Your task to perform on an android device: Go to Yahoo.com Image 0: 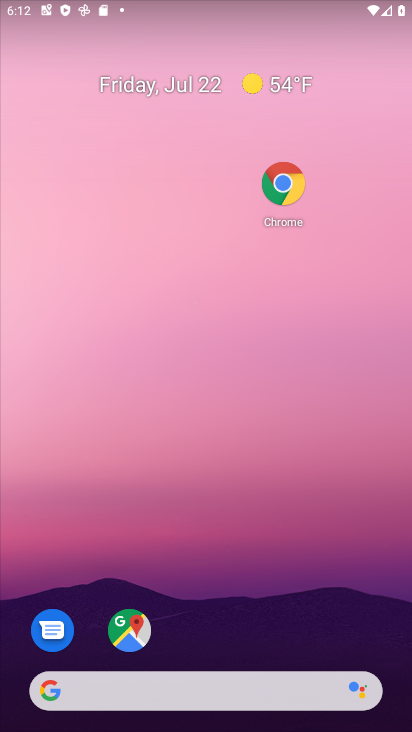
Step 0: click (282, 189)
Your task to perform on an android device: Go to Yahoo.com Image 1: 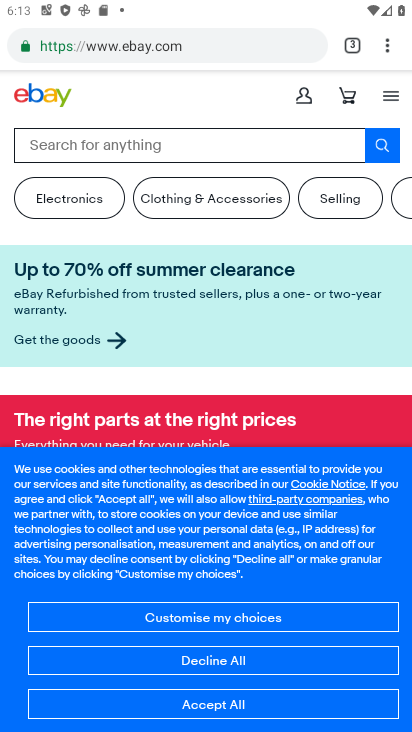
Step 1: click (112, 45)
Your task to perform on an android device: Go to Yahoo.com Image 2: 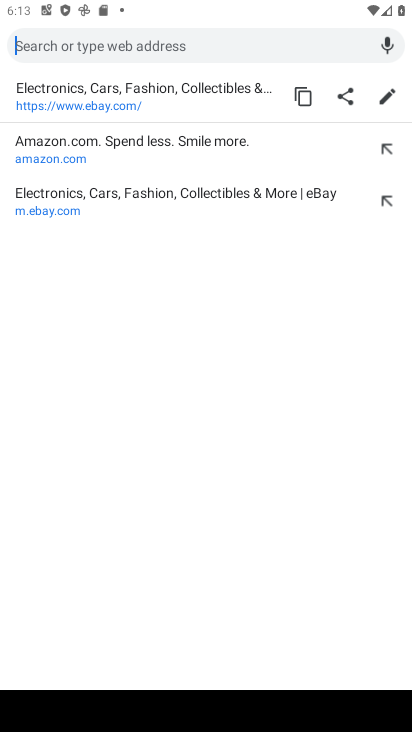
Step 2: type "www.yahoo.com"
Your task to perform on an android device: Go to Yahoo.com Image 3: 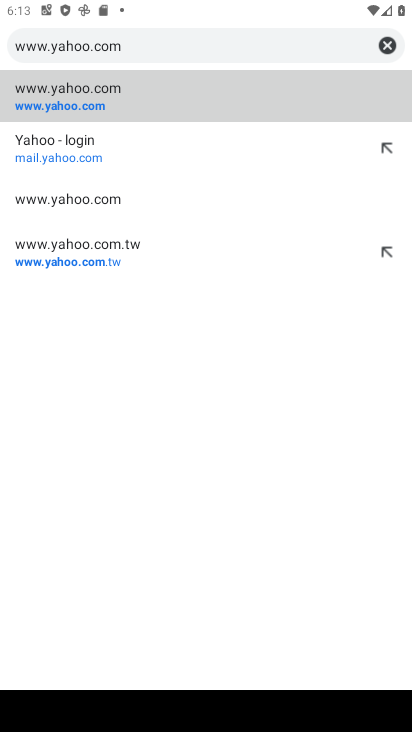
Step 3: click (64, 95)
Your task to perform on an android device: Go to Yahoo.com Image 4: 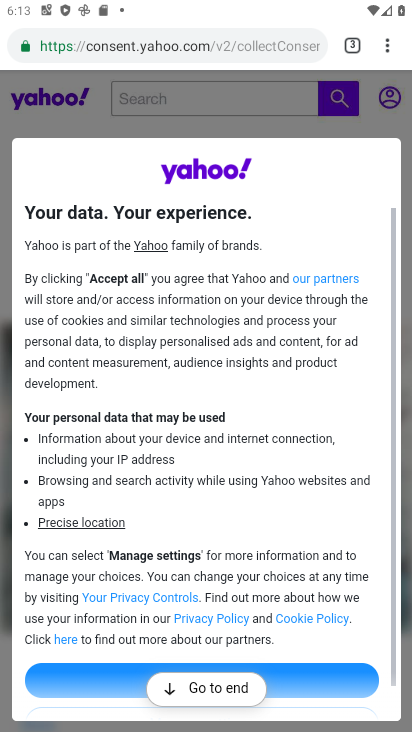
Step 4: task complete